Your task to perform on an android device: Go to settings Image 0: 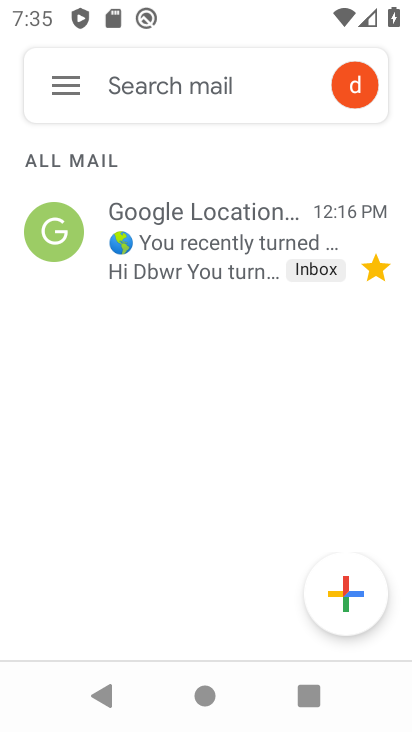
Step 0: press home button
Your task to perform on an android device: Go to settings Image 1: 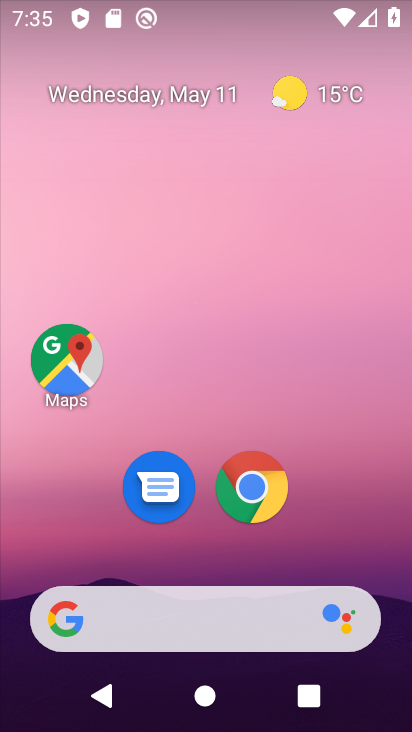
Step 1: drag from (275, 661) to (180, 147)
Your task to perform on an android device: Go to settings Image 2: 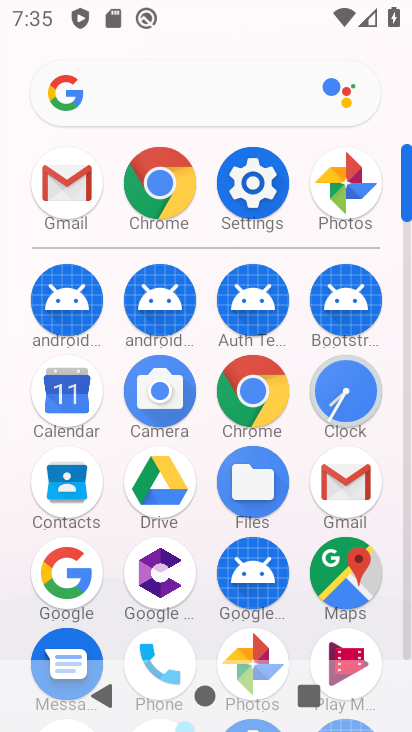
Step 2: click (263, 194)
Your task to perform on an android device: Go to settings Image 3: 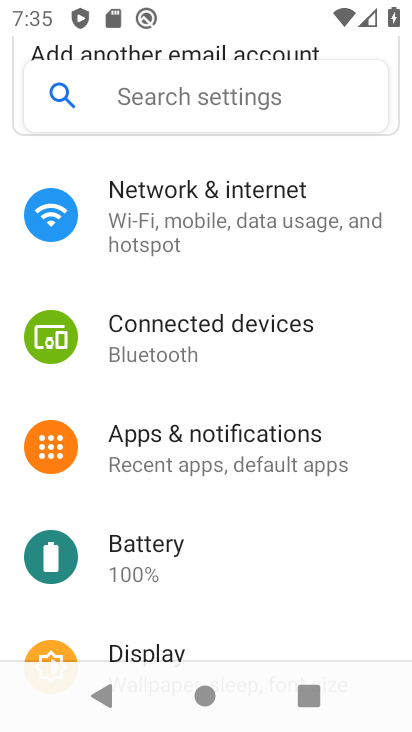
Step 3: task complete